Your task to perform on an android device: Go to CNN.com Image 0: 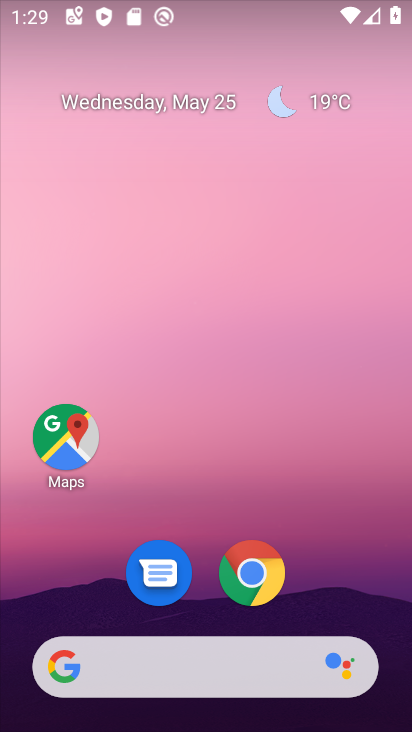
Step 0: click (253, 577)
Your task to perform on an android device: Go to CNN.com Image 1: 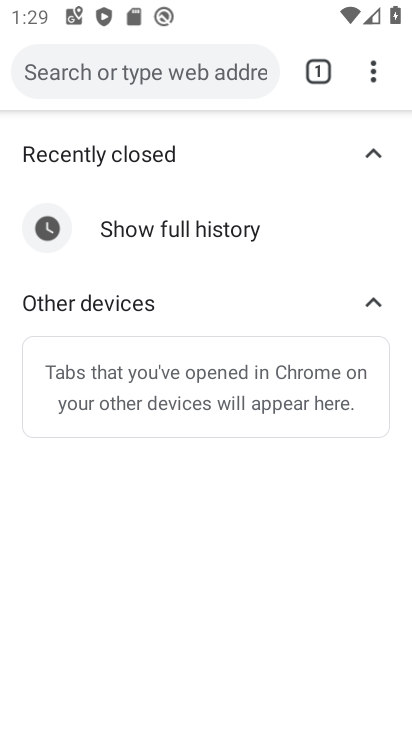
Step 1: click (105, 68)
Your task to perform on an android device: Go to CNN.com Image 2: 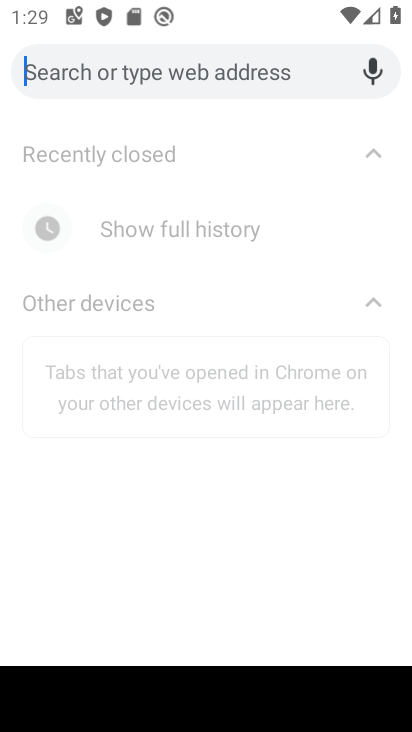
Step 2: type "cnn.com"
Your task to perform on an android device: Go to CNN.com Image 3: 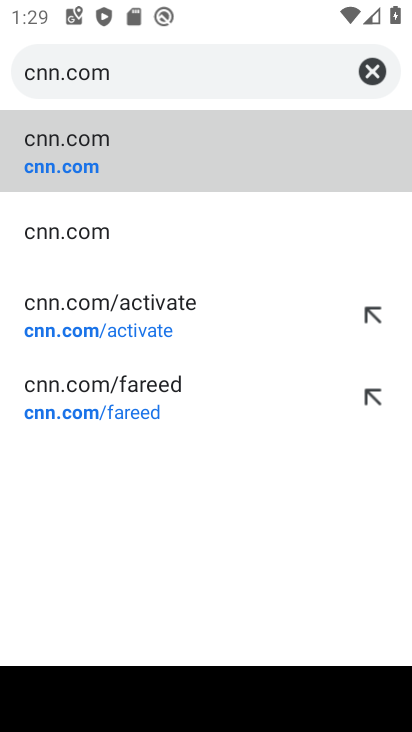
Step 3: click (79, 134)
Your task to perform on an android device: Go to CNN.com Image 4: 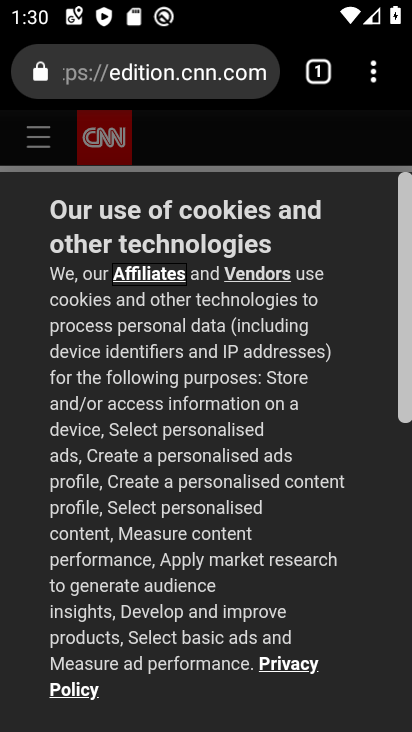
Step 4: task complete